Your task to perform on an android device: find snoozed emails in the gmail app Image 0: 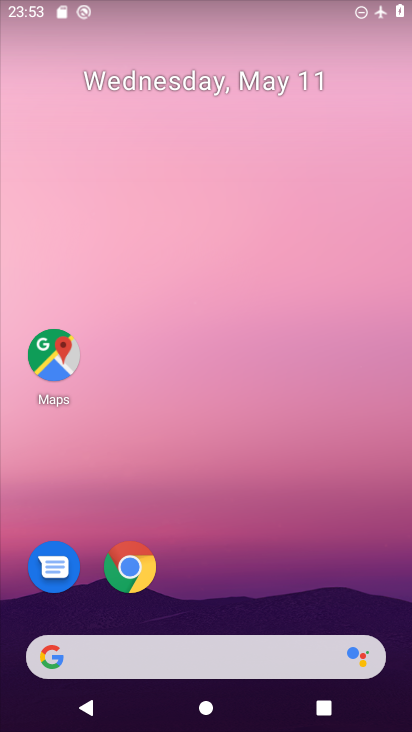
Step 0: drag from (254, 711) to (261, 94)
Your task to perform on an android device: find snoozed emails in the gmail app Image 1: 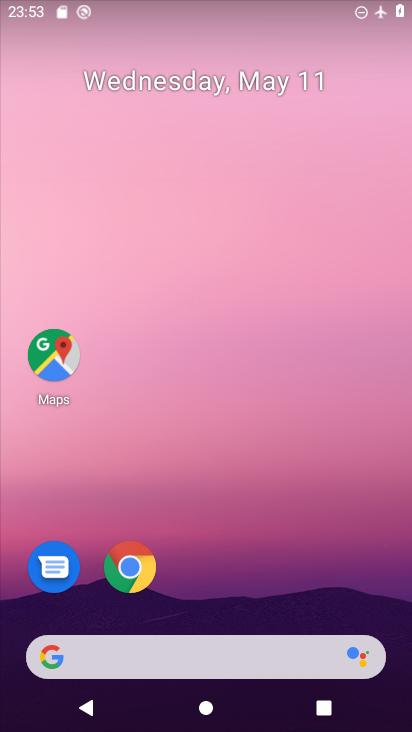
Step 1: drag from (272, 723) to (350, 3)
Your task to perform on an android device: find snoozed emails in the gmail app Image 2: 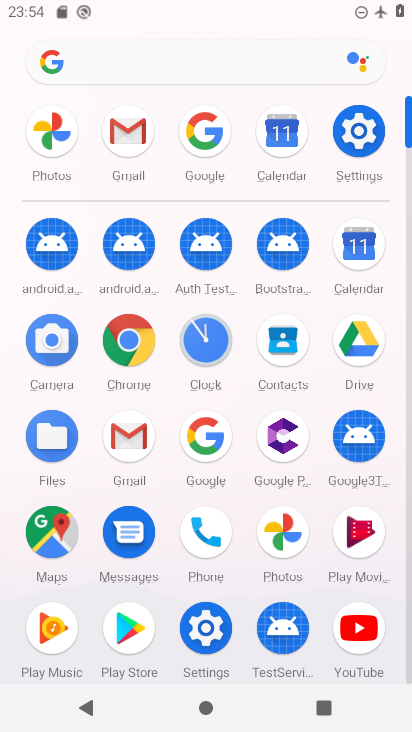
Step 2: click (131, 127)
Your task to perform on an android device: find snoozed emails in the gmail app Image 3: 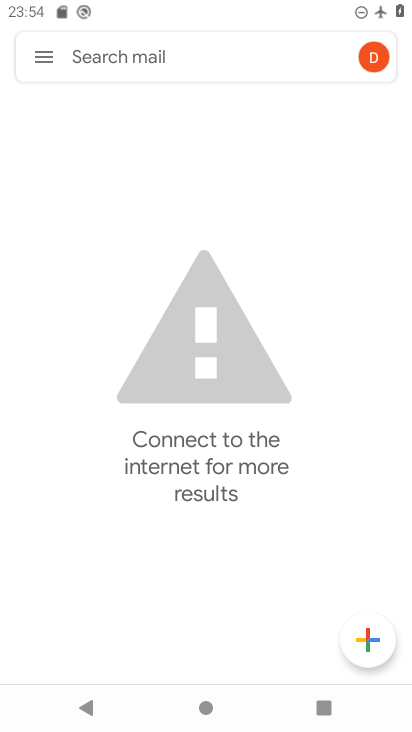
Step 3: task complete